Your task to perform on an android device: turn on javascript in the chrome app Image 0: 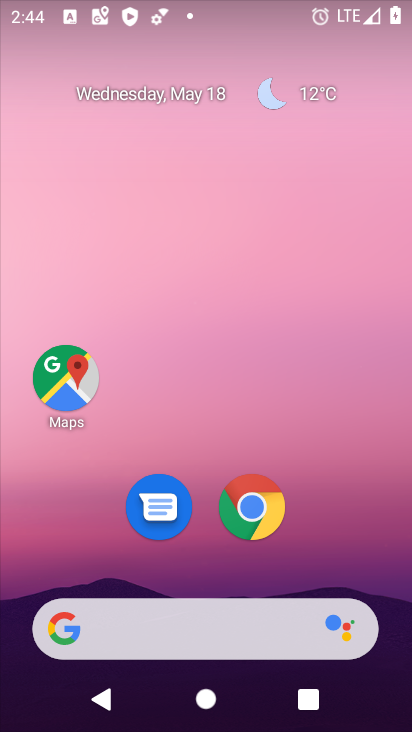
Step 0: click (249, 509)
Your task to perform on an android device: turn on javascript in the chrome app Image 1: 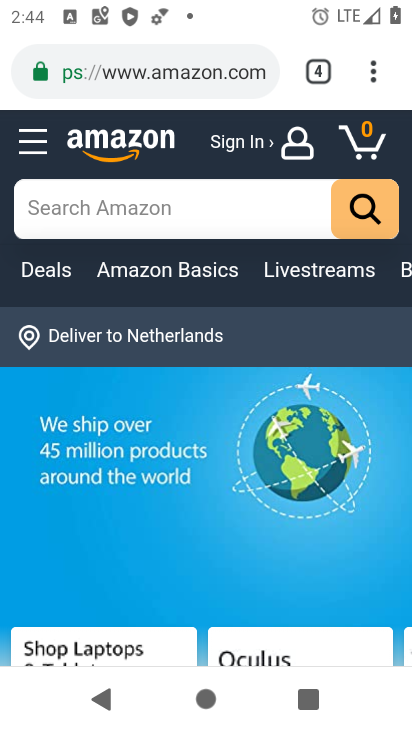
Step 1: click (371, 76)
Your task to perform on an android device: turn on javascript in the chrome app Image 2: 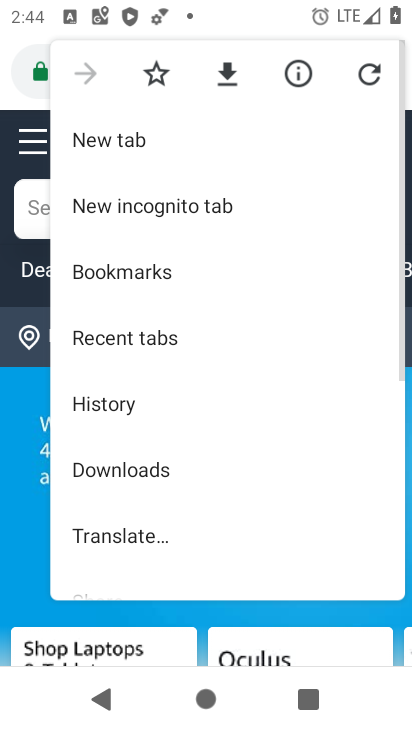
Step 2: drag from (249, 437) to (266, 118)
Your task to perform on an android device: turn on javascript in the chrome app Image 3: 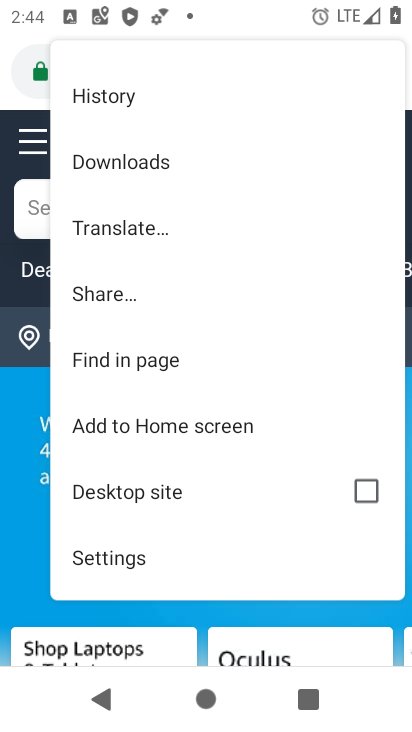
Step 3: click (93, 555)
Your task to perform on an android device: turn on javascript in the chrome app Image 4: 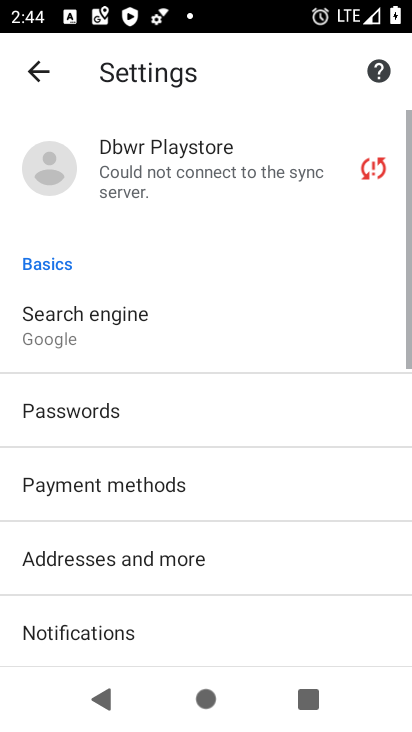
Step 4: drag from (267, 615) to (221, 182)
Your task to perform on an android device: turn on javascript in the chrome app Image 5: 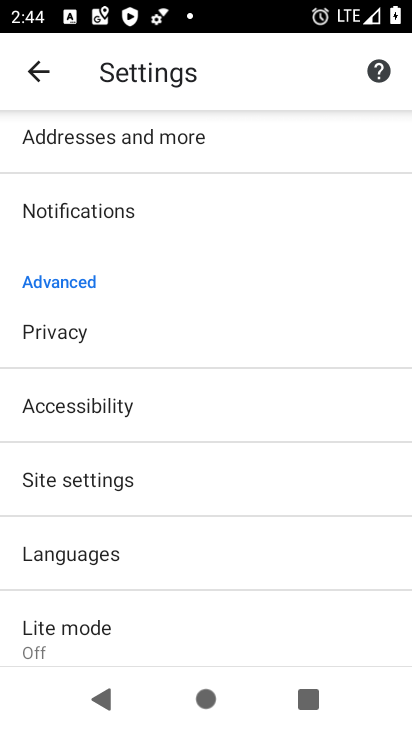
Step 5: click (57, 474)
Your task to perform on an android device: turn on javascript in the chrome app Image 6: 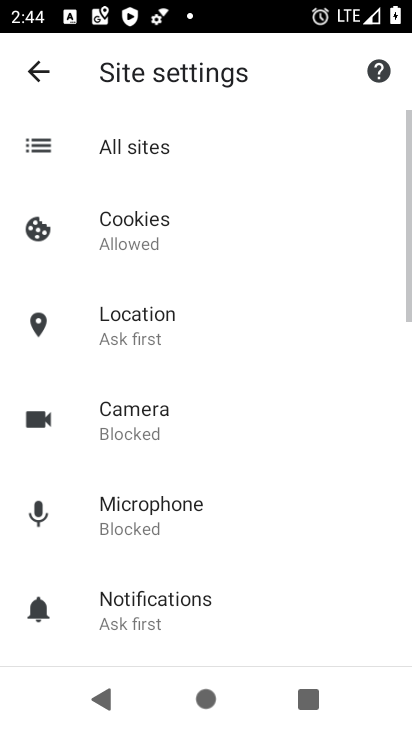
Step 6: drag from (247, 586) to (216, 188)
Your task to perform on an android device: turn on javascript in the chrome app Image 7: 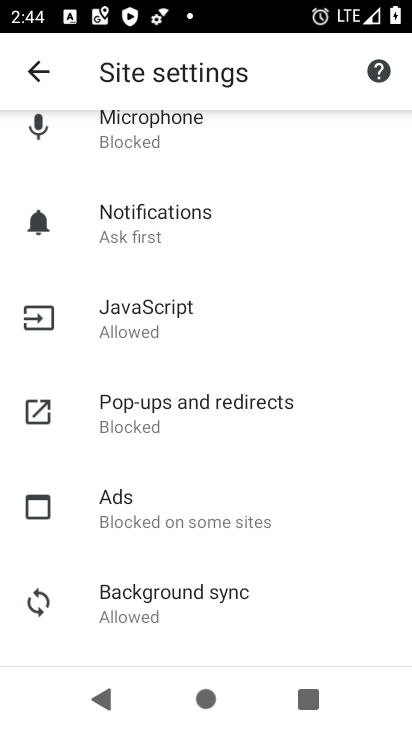
Step 7: click (118, 314)
Your task to perform on an android device: turn on javascript in the chrome app Image 8: 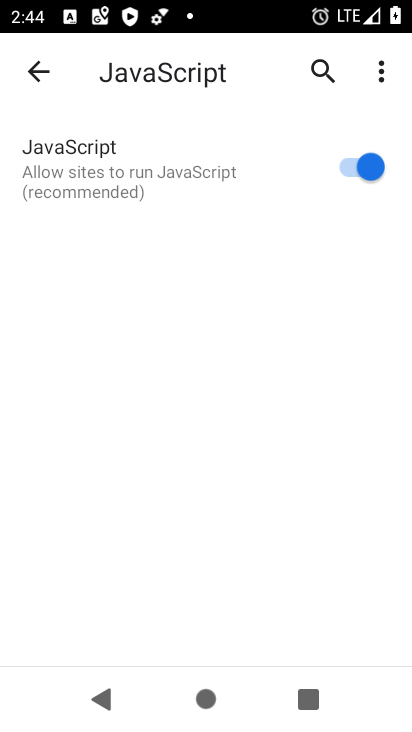
Step 8: task complete